Your task to perform on an android device: Go to battery settings Image 0: 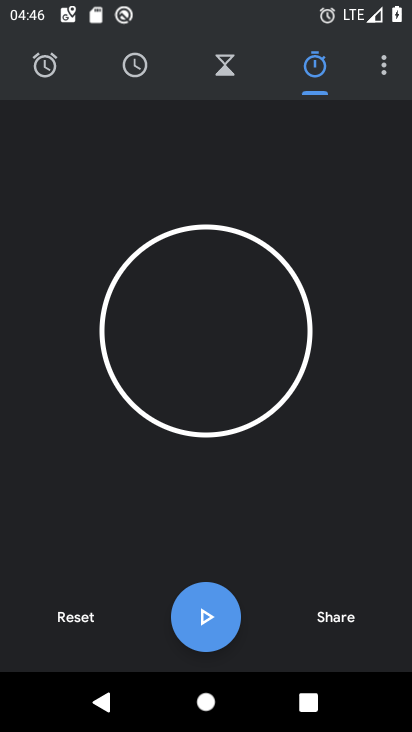
Step 0: press back button
Your task to perform on an android device: Go to battery settings Image 1: 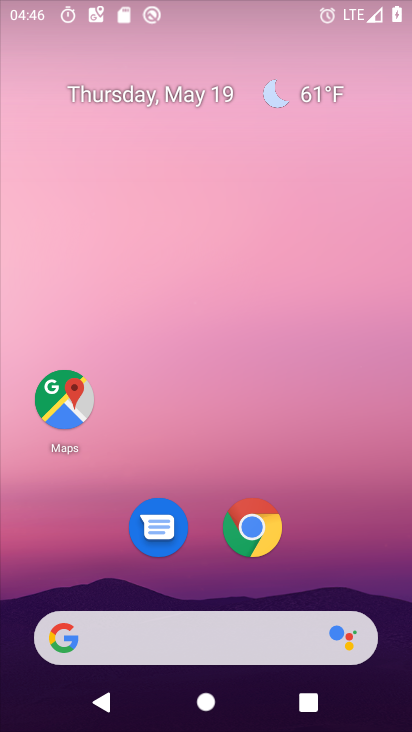
Step 1: drag from (245, 574) to (279, 28)
Your task to perform on an android device: Go to battery settings Image 2: 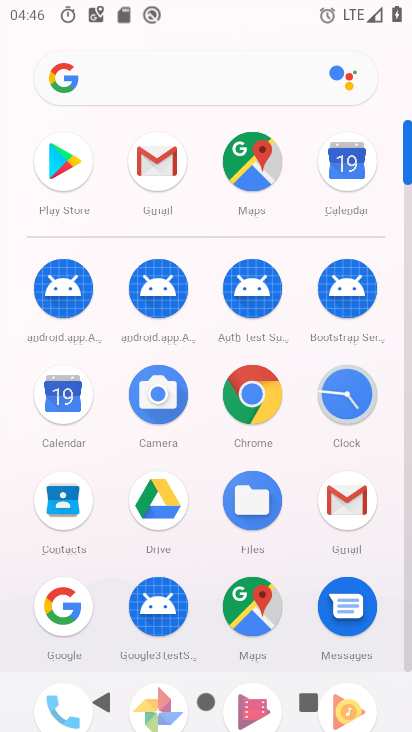
Step 2: drag from (200, 598) to (262, 164)
Your task to perform on an android device: Go to battery settings Image 3: 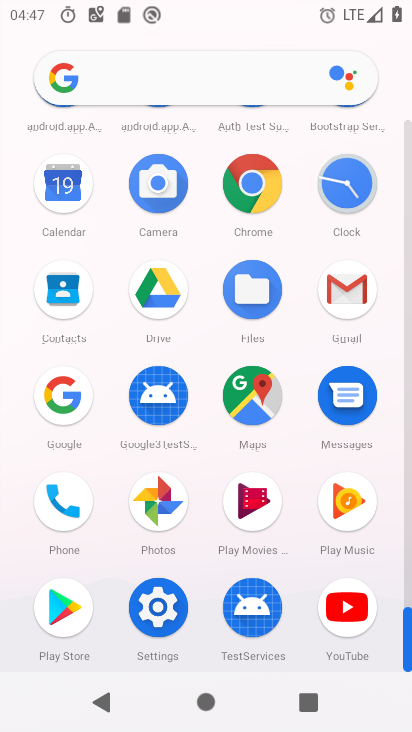
Step 3: click (150, 597)
Your task to perform on an android device: Go to battery settings Image 4: 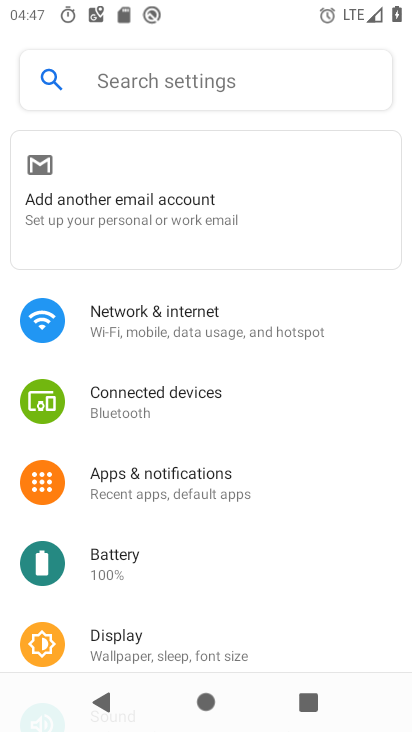
Step 4: click (145, 572)
Your task to perform on an android device: Go to battery settings Image 5: 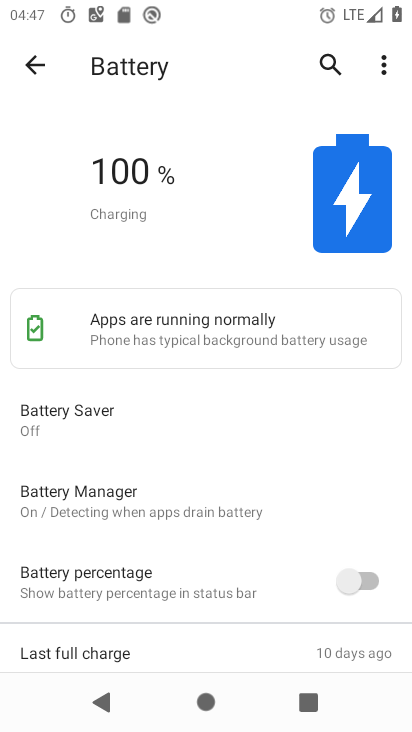
Step 5: task complete